Your task to perform on an android device: toggle notifications settings in the gmail app Image 0: 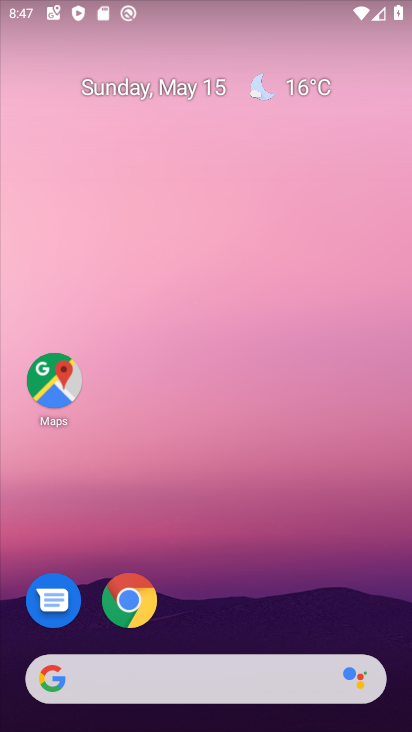
Step 0: drag from (253, 491) to (273, 60)
Your task to perform on an android device: toggle notifications settings in the gmail app Image 1: 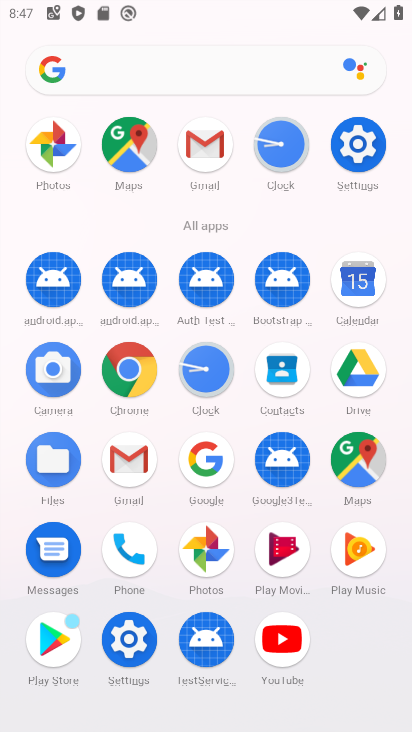
Step 1: click (206, 141)
Your task to perform on an android device: toggle notifications settings in the gmail app Image 2: 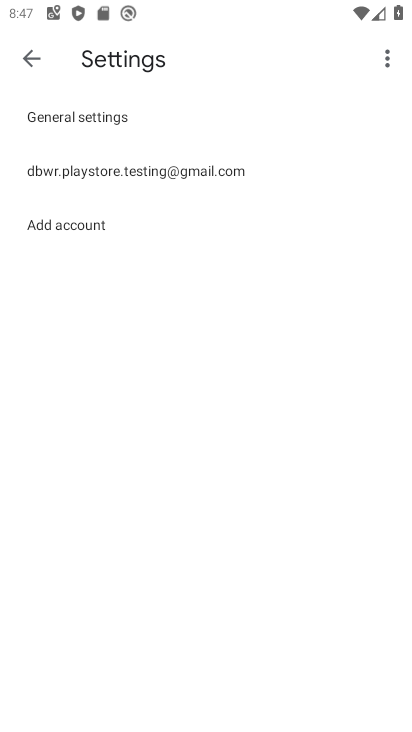
Step 2: click (76, 167)
Your task to perform on an android device: toggle notifications settings in the gmail app Image 3: 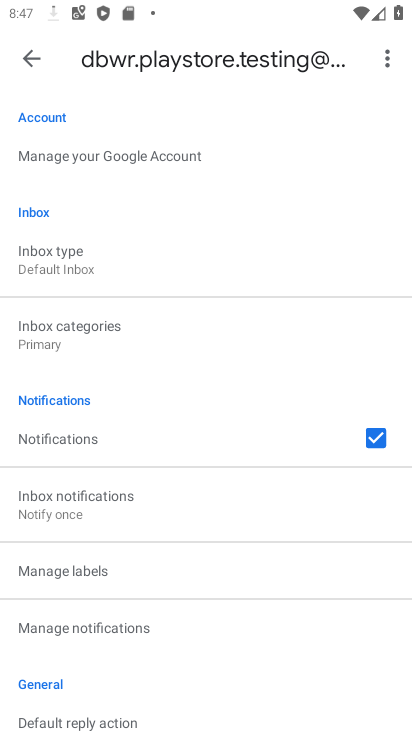
Step 3: click (103, 448)
Your task to perform on an android device: toggle notifications settings in the gmail app Image 4: 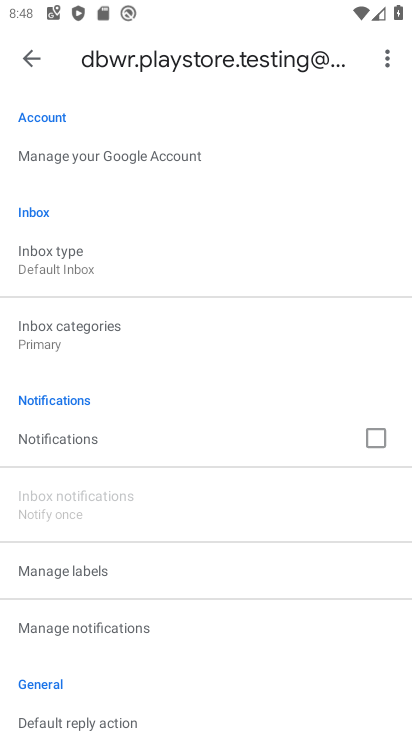
Step 4: task complete